Your task to perform on an android device: Go to ESPN.com Image 0: 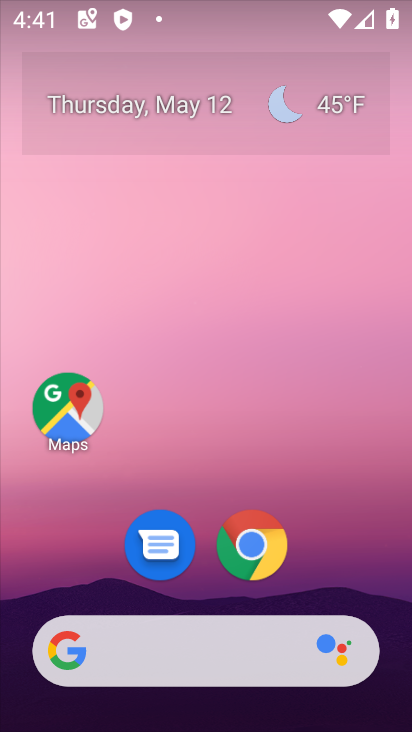
Step 0: press home button
Your task to perform on an android device: Go to ESPN.com Image 1: 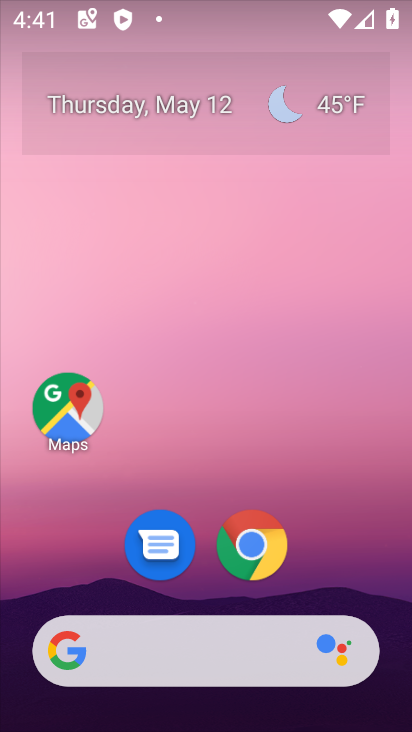
Step 1: drag from (337, 545) to (252, 132)
Your task to perform on an android device: Go to ESPN.com Image 2: 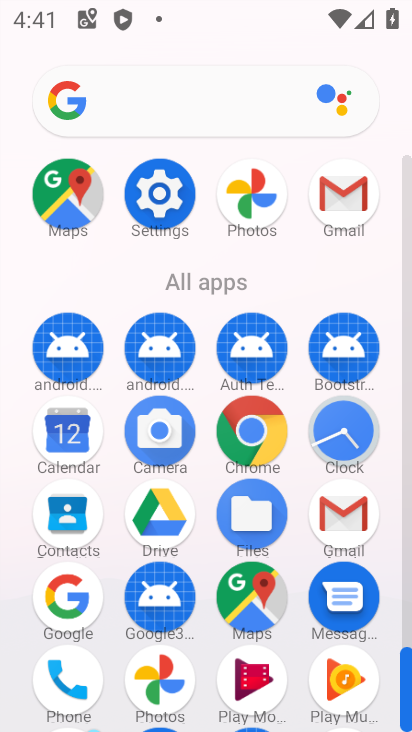
Step 2: click (235, 420)
Your task to perform on an android device: Go to ESPN.com Image 3: 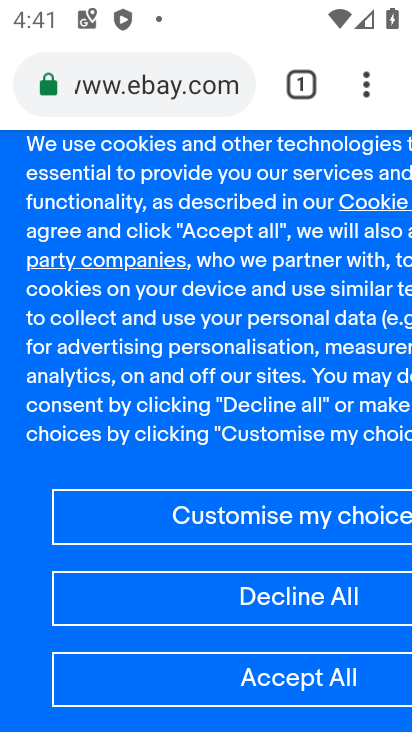
Step 3: click (182, 99)
Your task to perform on an android device: Go to ESPN.com Image 4: 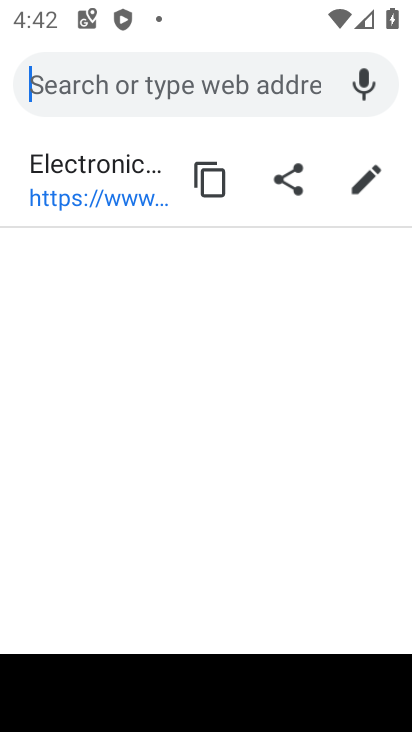
Step 4: type ""
Your task to perform on an android device: Go to ESPN.com Image 5: 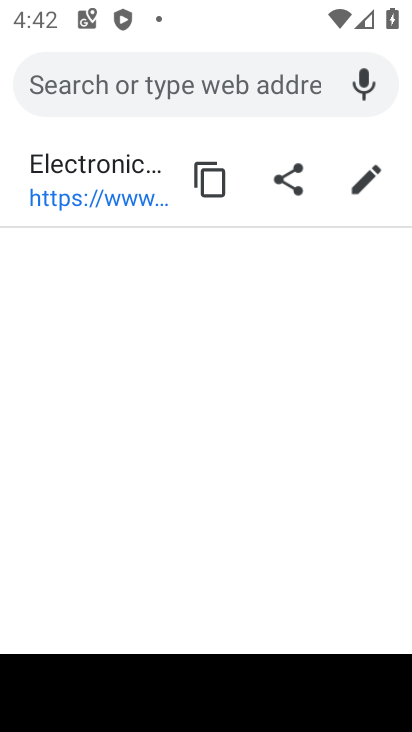
Step 5: type ""
Your task to perform on an android device: Go to ESPN.com Image 6: 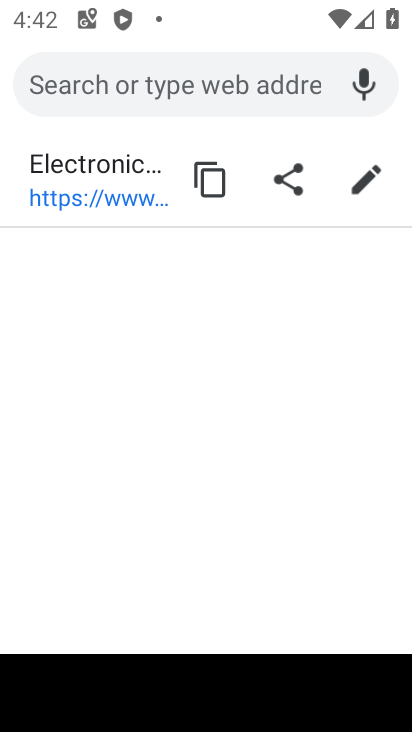
Step 6: type "espn.com"
Your task to perform on an android device: Go to ESPN.com Image 7: 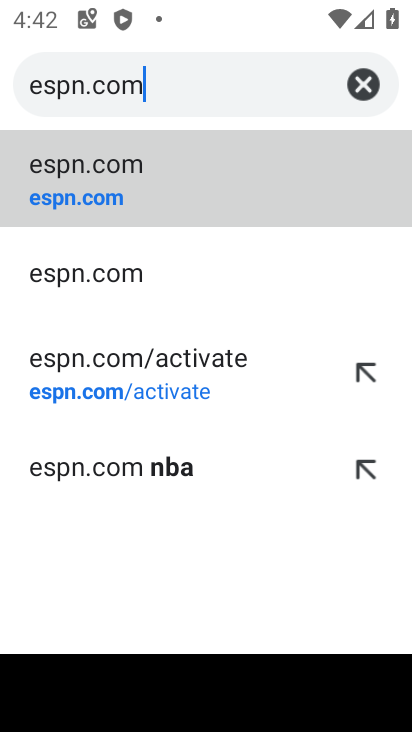
Step 7: click (71, 186)
Your task to perform on an android device: Go to ESPN.com Image 8: 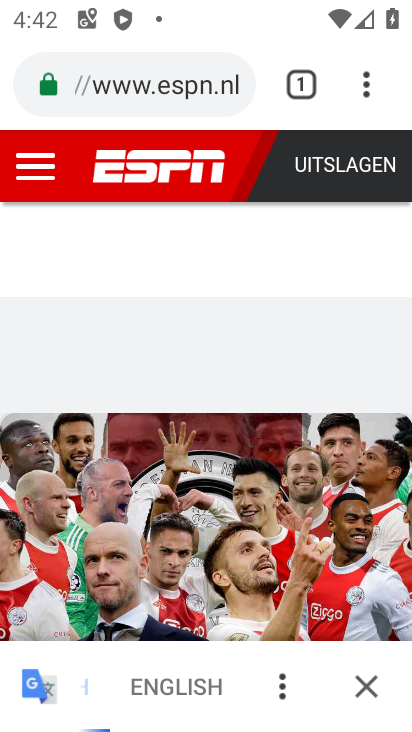
Step 8: task complete